Your task to perform on an android device: turn smart compose on in the gmail app Image 0: 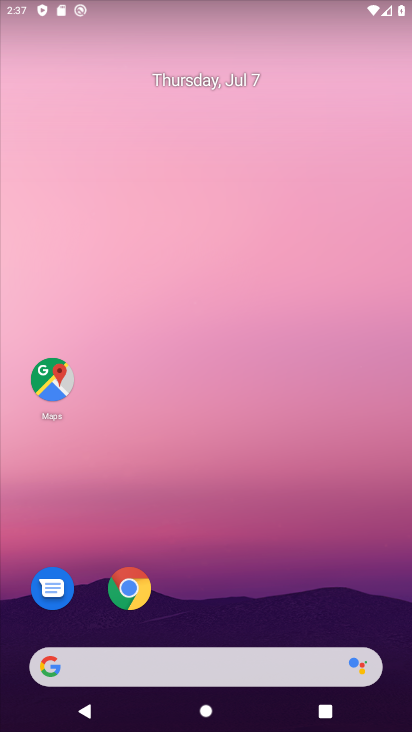
Step 0: drag from (171, 633) to (172, 197)
Your task to perform on an android device: turn smart compose on in the gmail app Image 1: 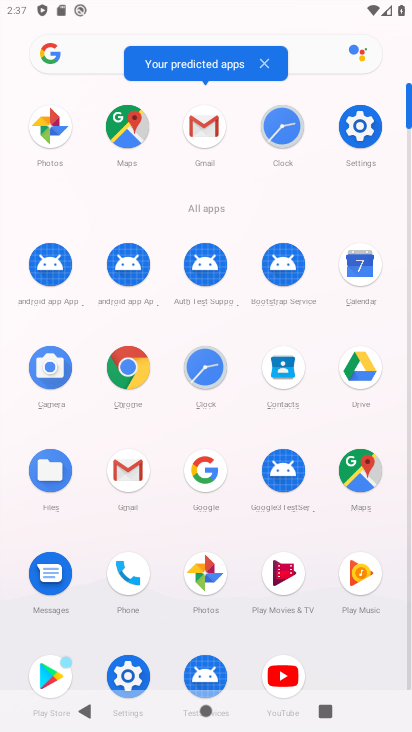
Step 1: click (207, 131)
Your task to perform on an android device: turn smart compose on in the gmail app Image 2: 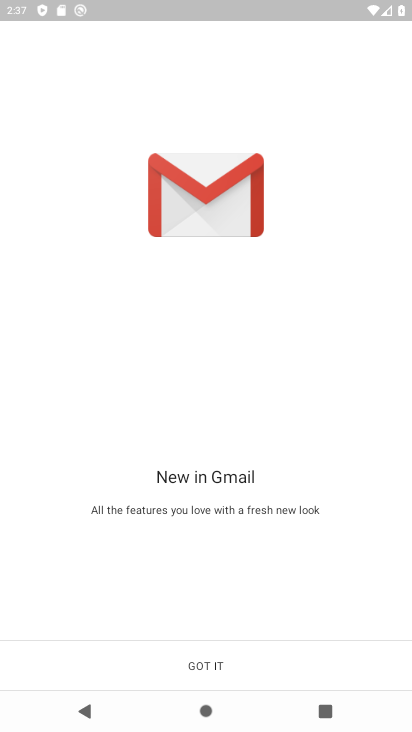
Step 2: click (192, 666)
Your task to perform on an android device: turn smart compose on in the gmail app Image 3: 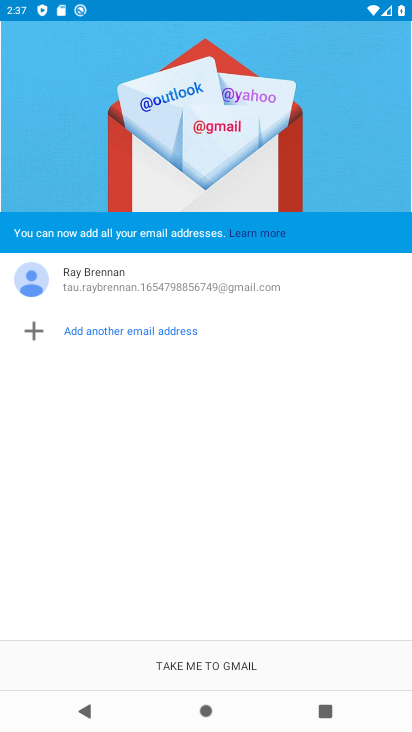
Step 3: click (190, 664)
Your task to perform on an android device: turn smart compose on in the gmail app Image 4: 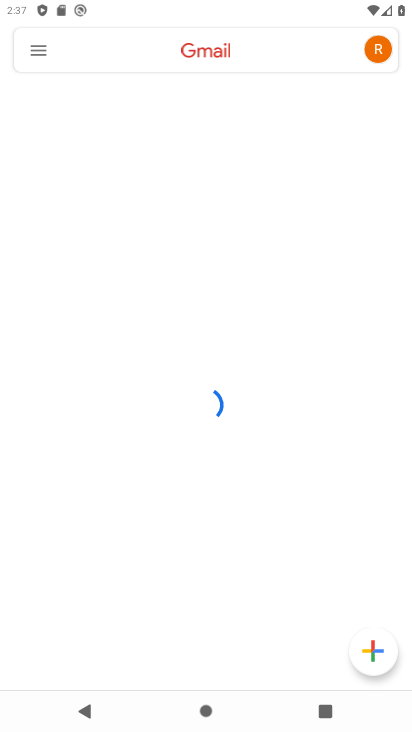
Step 4: click (38, 50)
Your task to perform on an android device: turn smart compose on in the gmail app Image 5: 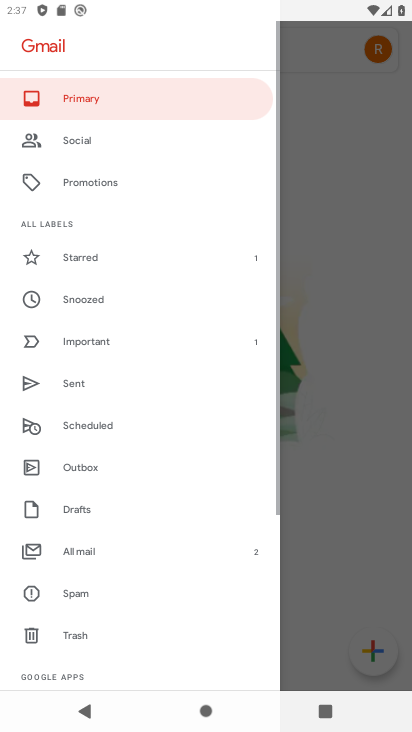
Step 5: click (80, 224)
Your task to perform on an android device: turn smart compose on in the gmail app Image 6: 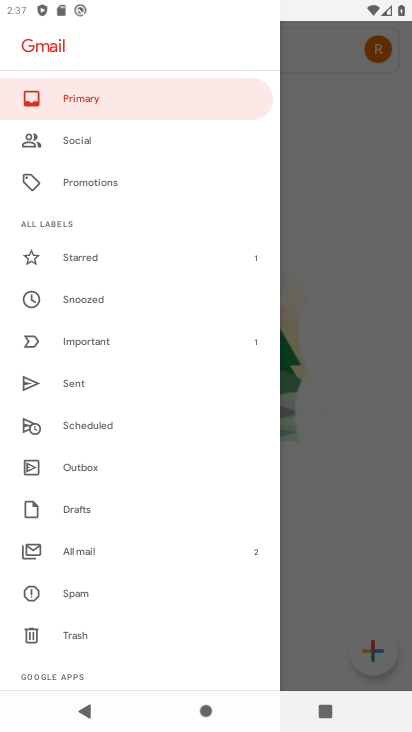
Step 6: drag from (86, 666) to (136, 191)
Your task to perform on an android device: turn smart compose on in the gmail app Image 7: 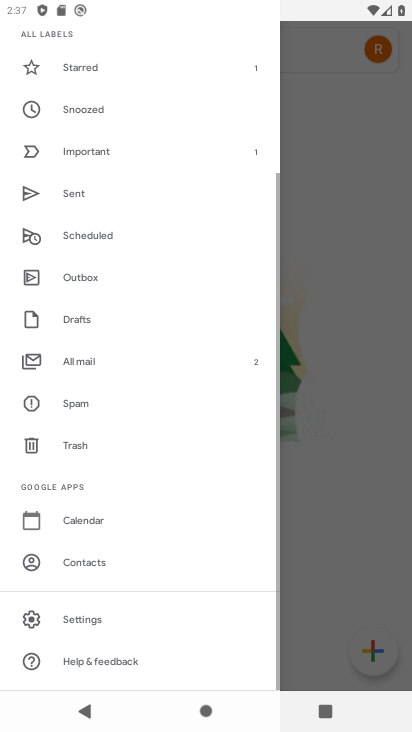
Step 7: click (83, 616)
Your task to perform on an android device: turn smart compose on in the gmail app Image 8: 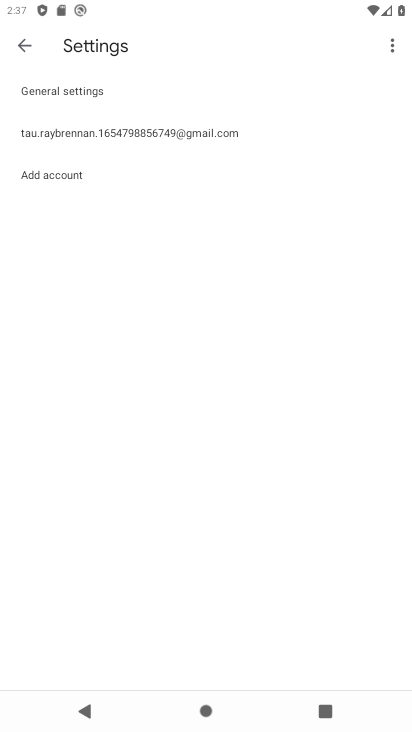
Step 8: click (108, 128)
Your task to perform on an android device: turn smart compose on in the gmail app Image 9: 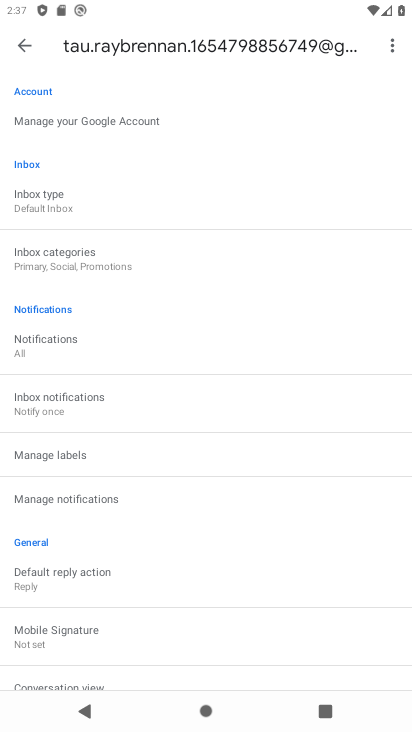
Step 9: task complete